Your task to perform on an android device: Search for vegetarian restaurants on Maps Image 0: 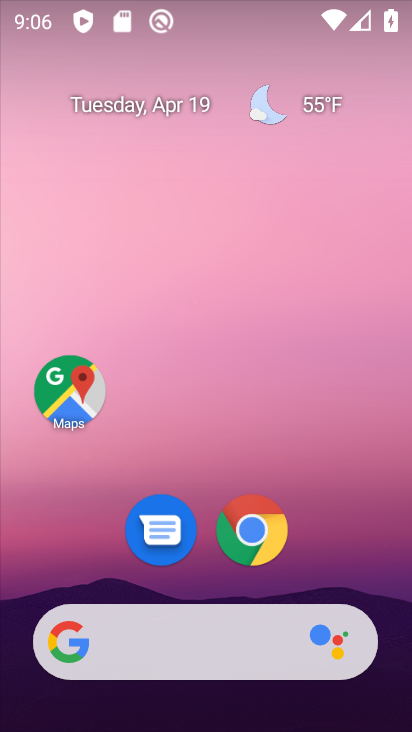
Step 0: click (77, 389)
Your task to perform on an android device: Search for vegetarian restaurants on Maps Image 1: 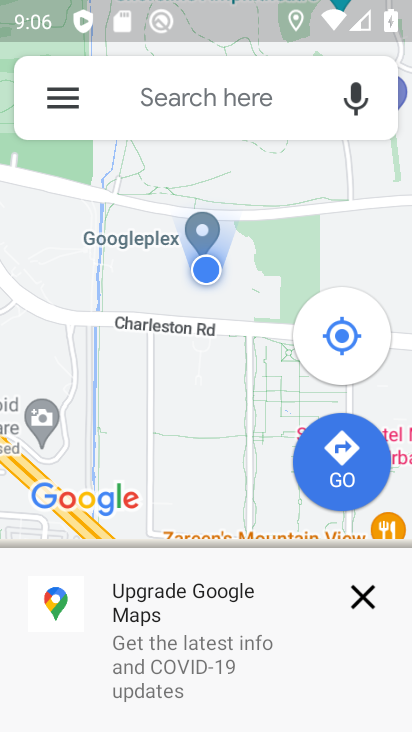
Step 1: click (193, 101)
Your task to perform on an android device: Search for vegetarian restaurants on Maps Image 2: 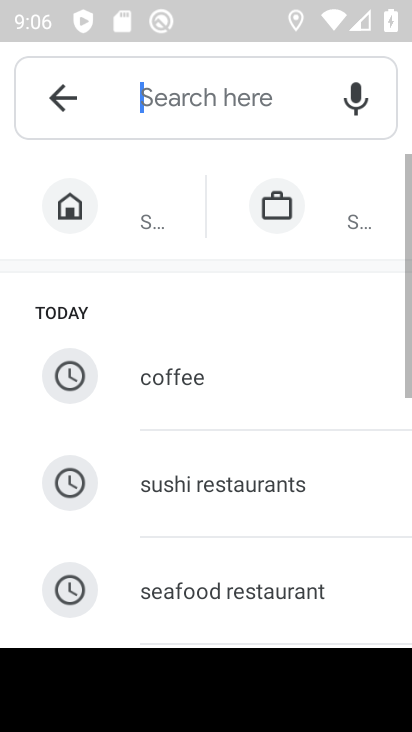
Step 2: drag from (214, 545) to (212, 102)
Your task to perform on an android device: Search for vegetarian restaurants on Maps Image 3: 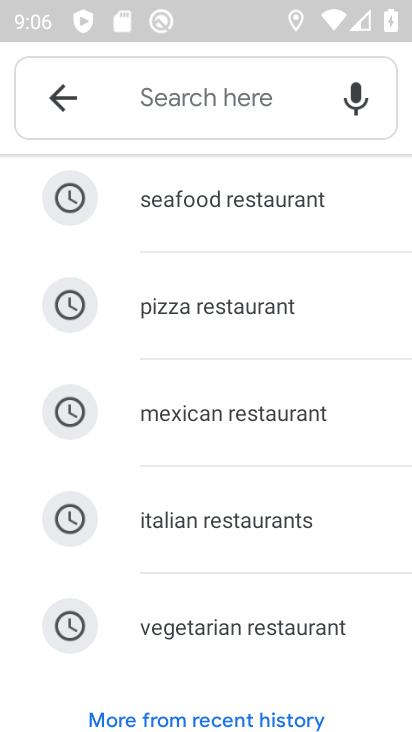
Step 3: click (214, 623)
Your task to perform on an android device: Search for vegetarian restaurants on Maps Image 4: 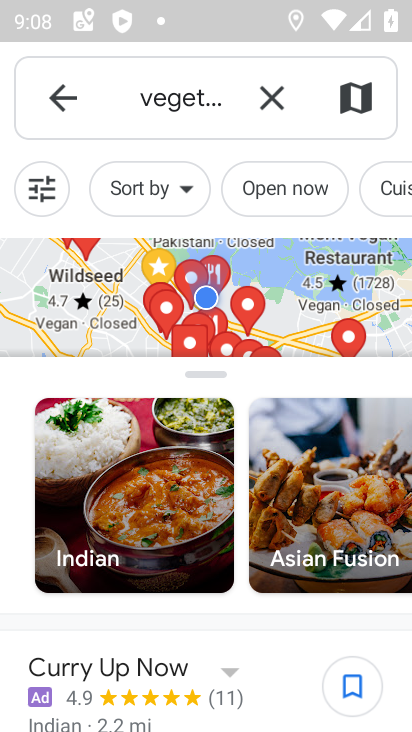
Step 4: task complete